Your task to perform on an android device: toggle airplane mode Image 0: 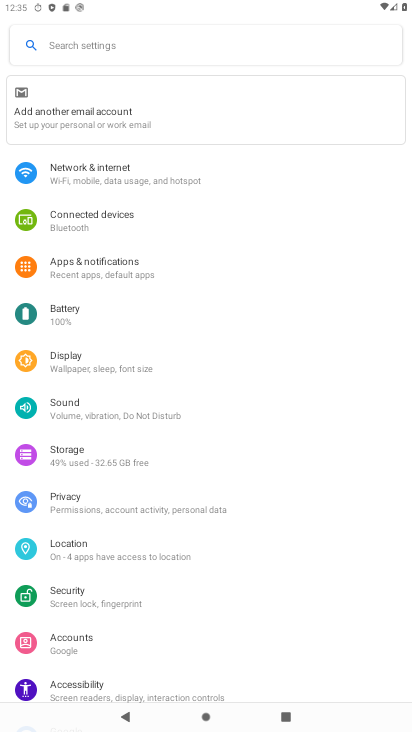
Step 0: press home button
Your task to perform on an android device: toggle airplane mode Image 1: 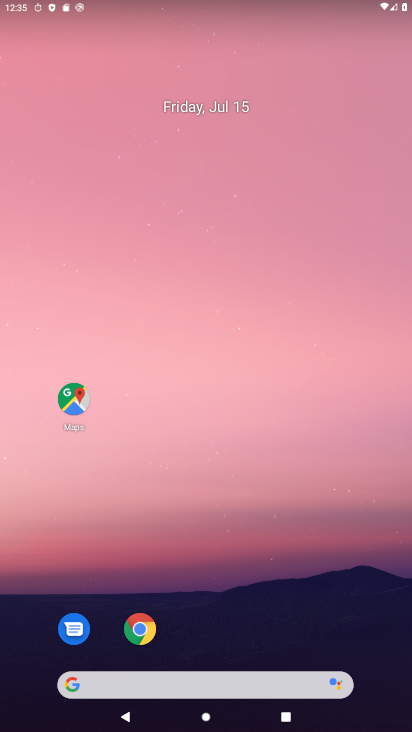
Step 1: drag from (206, 622) to (207, 74)
Your task to perform on an android device: toggle airplane mode Image 2: 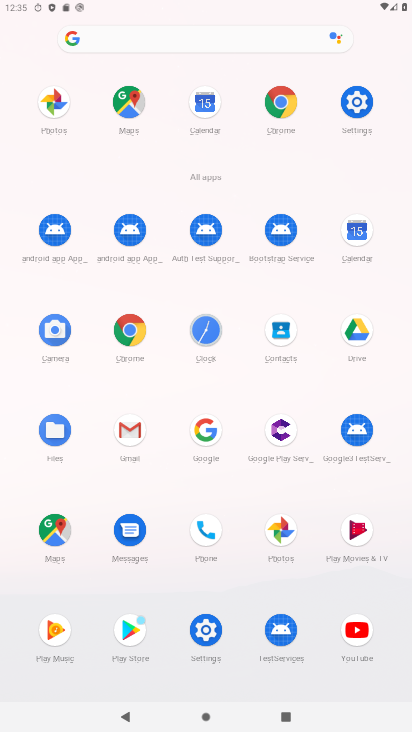
Step 2: click (226, 634)
Your task to perform on an android device: toggle airplane mode Image 3: 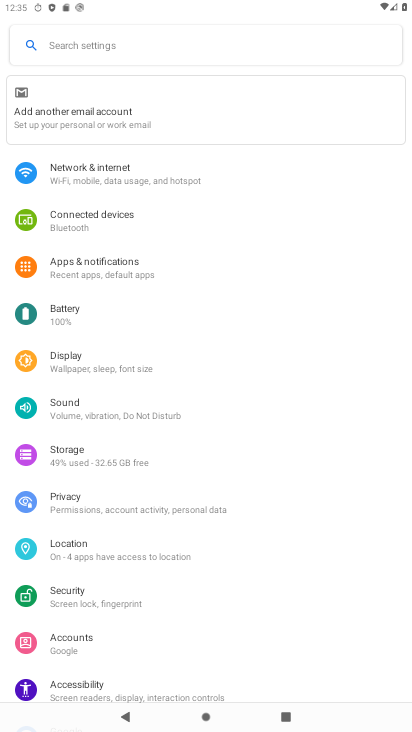
Step 3: click (131, 181)
Your task to perform on an android device: toggle airplane mode Image 4: 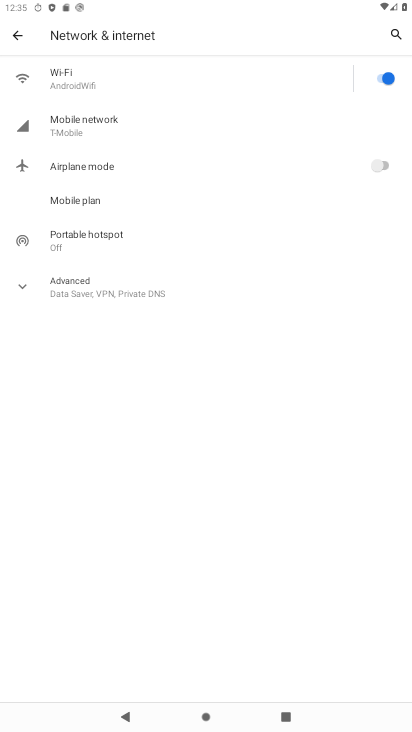
Step 4: click (378, 165)
Your task to perform on an android device: toggle airplane mode Image 5: 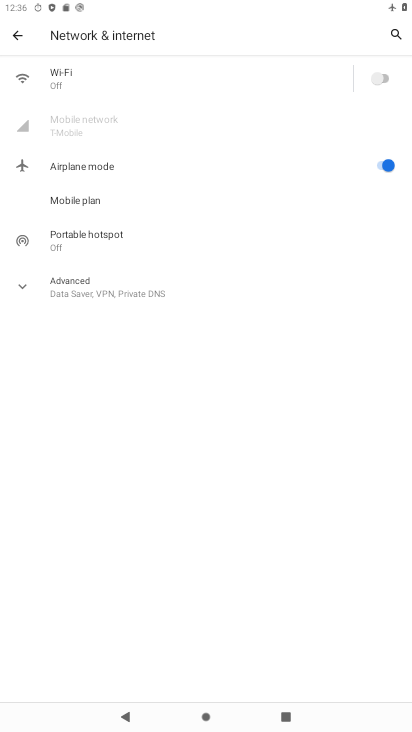
Step 5: task complete